Your task to perform on an android device: turn notification dots on Image 0: 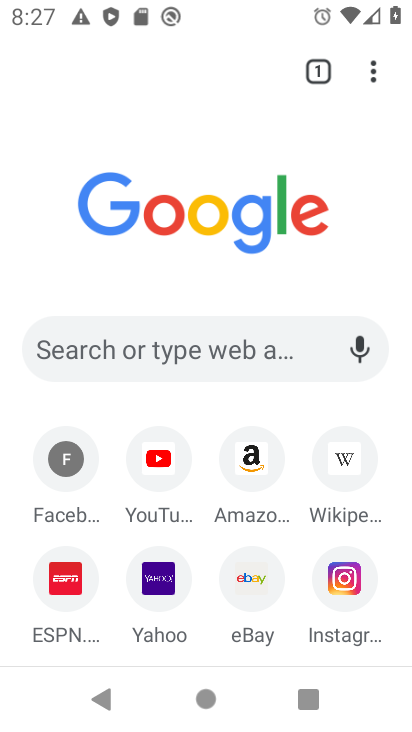
Step 0: press home button
Your task to perform on an android device: turn notification dots on Image 1: 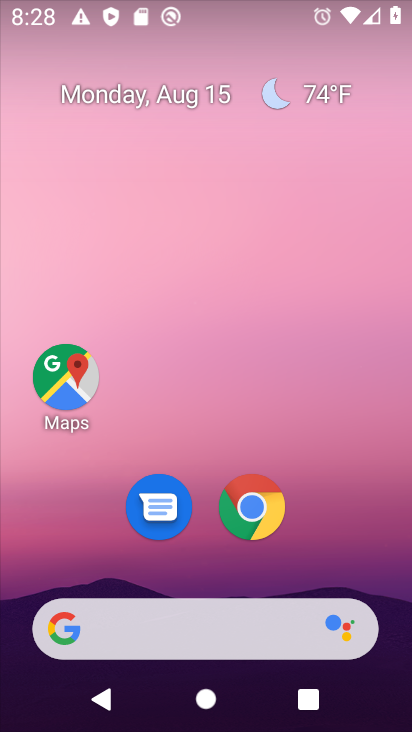
Step 1: drag from (111, 623) to (234, 63)
Your task to perform on an android device: turn notification dots on Image 2: 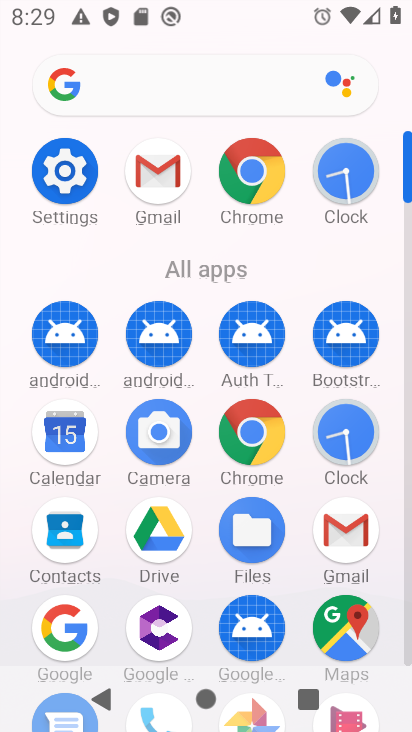
Step 2: click (53, 166)
Your task to perform on an android device: turn notification dots on Image 3: 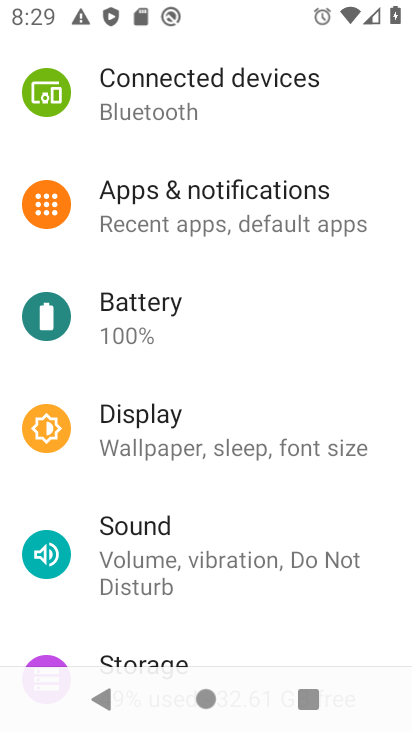
Step 3: drag from (167, 195) to (153, 595)
Your task to perform on an android device: turn notification dots on Image 4: 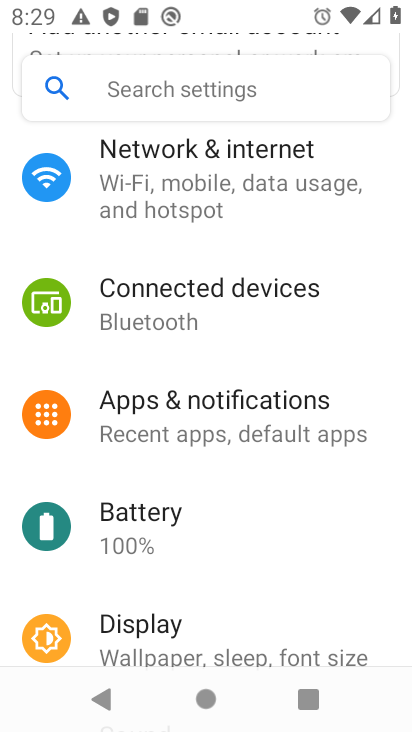
Step 4: drag from (198, 322) to (136, 705)
Your task to perform on an android device: turn notification dots on Image 5: 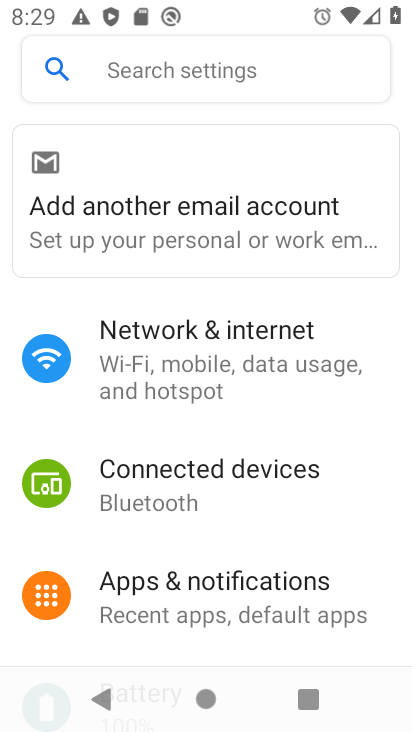
Step 5: click (126, 610)
Your task to perform on an android device: turn notification dots on Image 6: 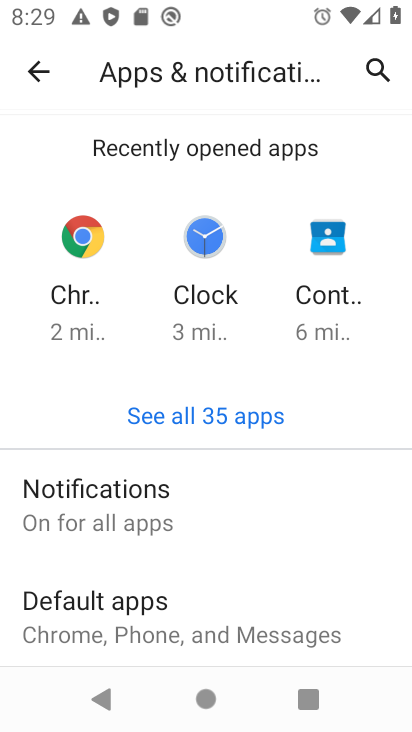
Step 6: click (78, 506)
Your task to perform on an android device: turn notification dots on Image 7: 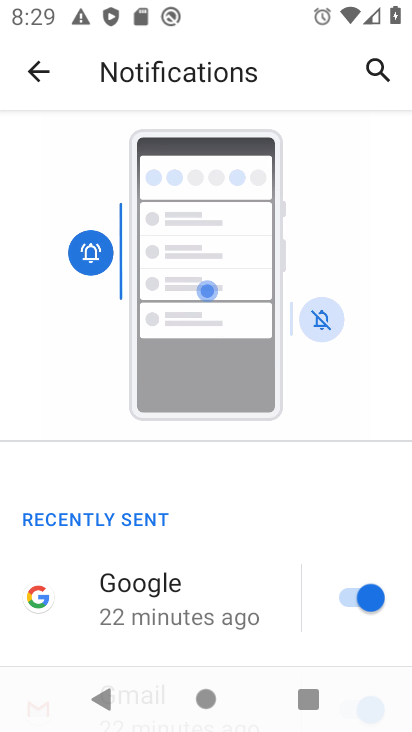
Step 7: drag from (171, 638) to (141, 319)
Your task to perform on an android device: turn notification dots on Image 8: 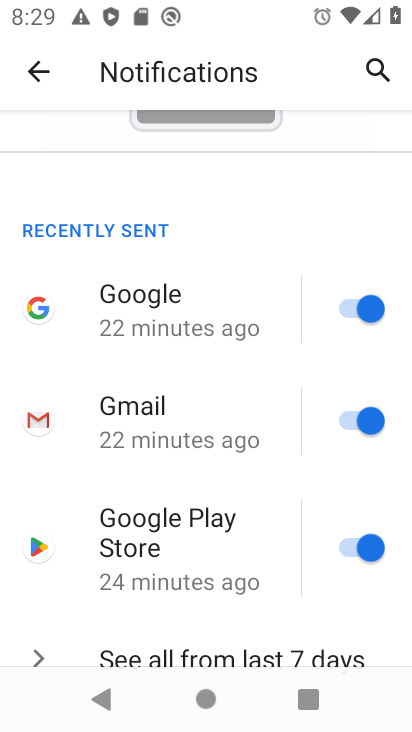
Step 8: drag from (164, 628) to (194, 101)
Your task to perform on an android device: turn notification dots on Image 9: 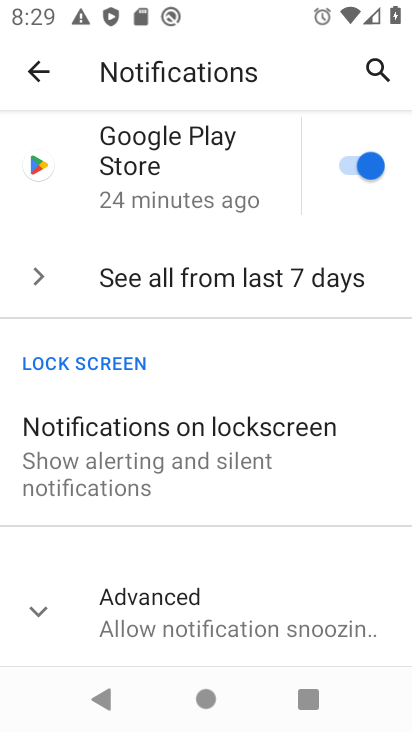
Step 9: click (142, 618)
Your task to perform on an android device: turn notification dots on Image 10: 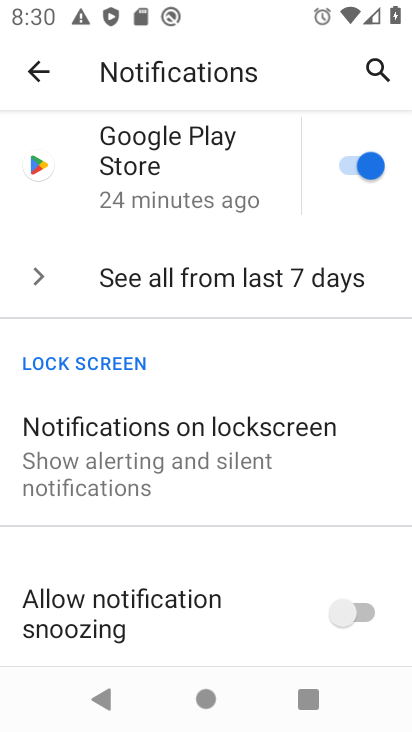
Step 10: task complete